Your task to perform on an android device: check storage Image 0: 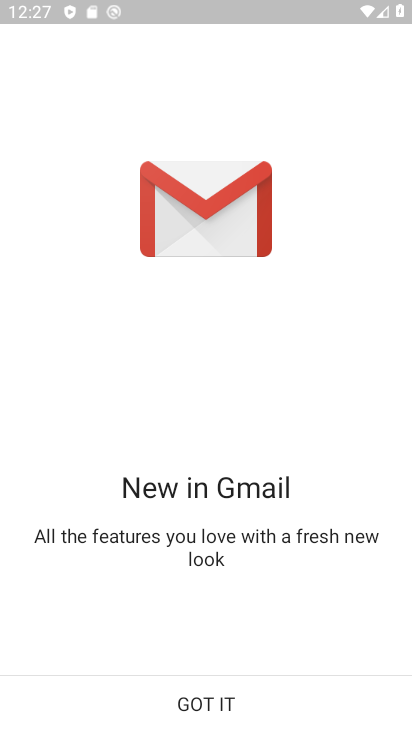
Step 0: press home button
Your task to perform on an android device: check storage Image 1: 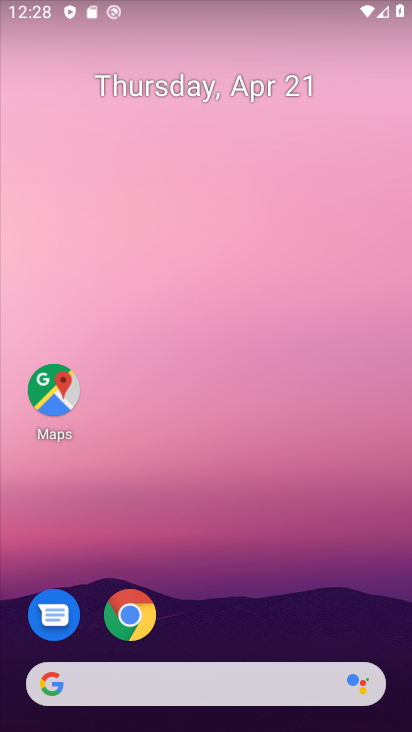
Step 1: drag from (275, 617) to (255, 49)
Your task to perform on an android device: check storage Image 2: 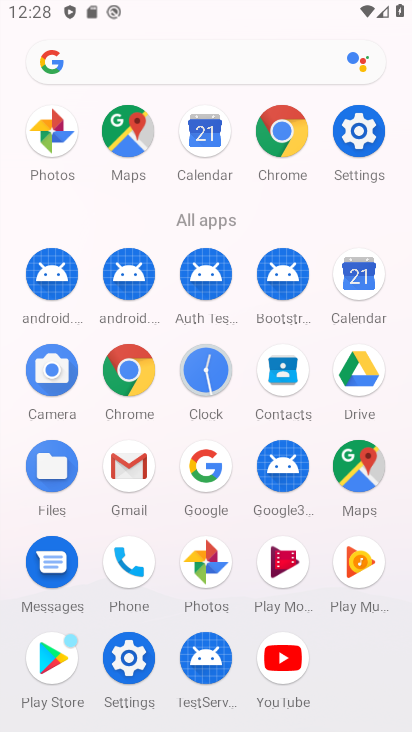
Step 2: click (346, 140)
Your task to perform on an android device: check storage Image 3: 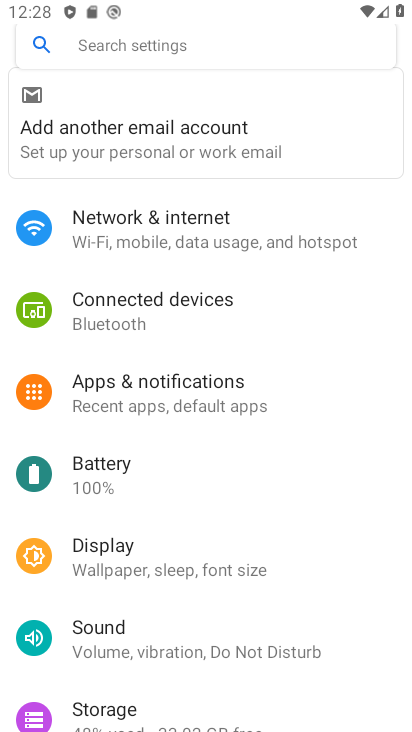
Step 3: click (90, 694)
Your task to perform on an android device: check storage Image 4: 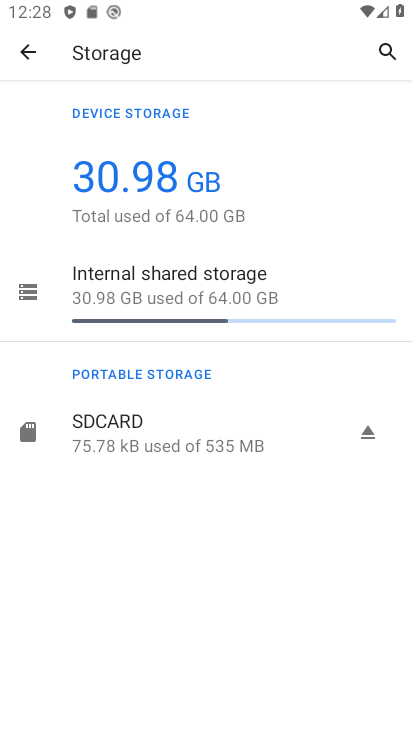
Step 4: task complete